Your task to perform on an android device: change timer sound Image 0: 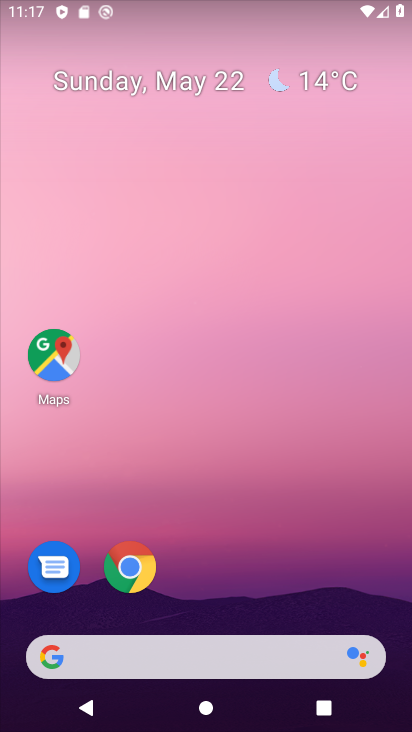
Step 0: drag from (226, 569) to (311, 160)
Your task to perform on an android device: change timer sound Image 1: 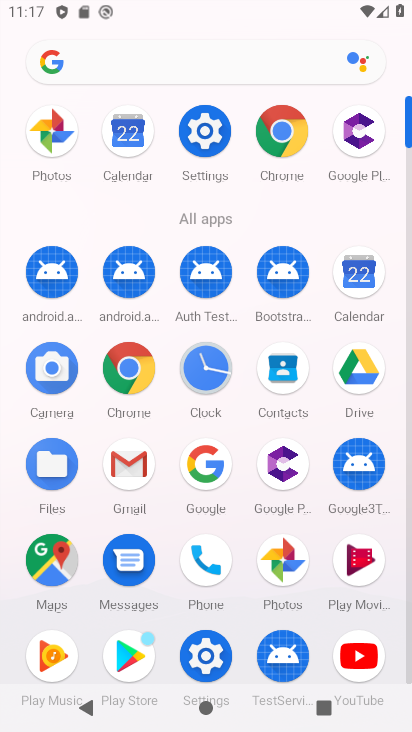
Step 1: click (221, 373)
Your task to perform on an android device: change timer sound Image 2: 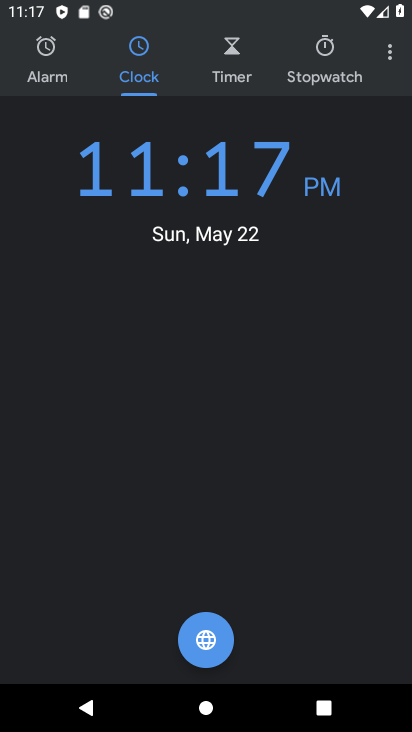
Step 2: click (388, 52)
Your task to perform on an android device: change timer sound Image 3: 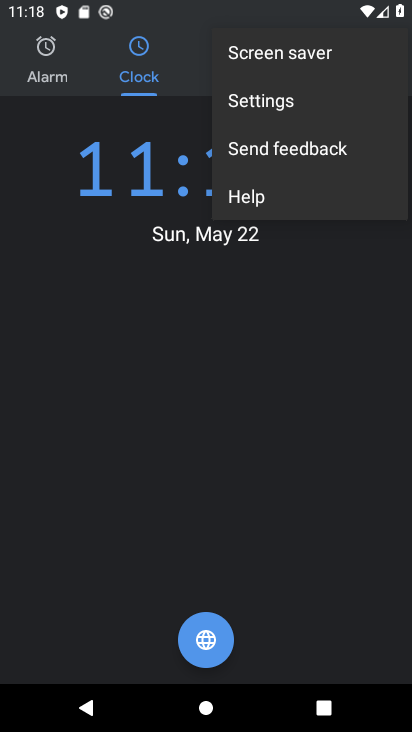
Step 3: click (277, 105)
Your task to perform on an android device: change timer sound Image 4: 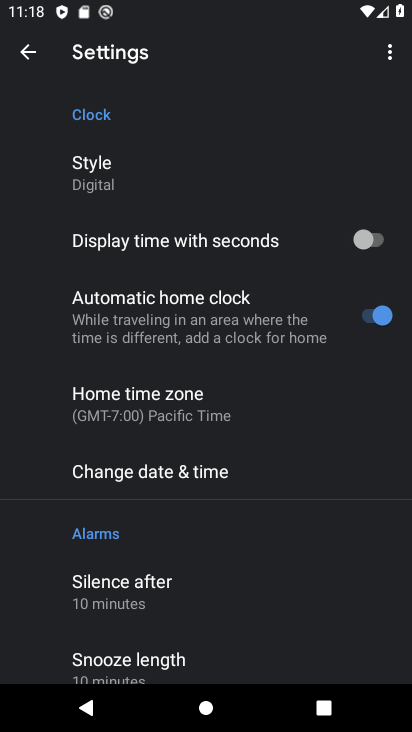
Step 4: drag from (187, 597) to (223, 32)
Your task to perform on an android device: change timer sound Image 5: 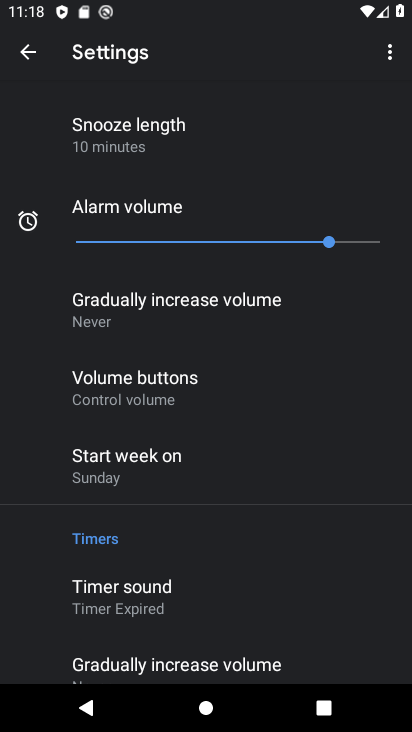
Step 5: click (134, 601)
Your task to perform on an android device: change timer sound Image 6: 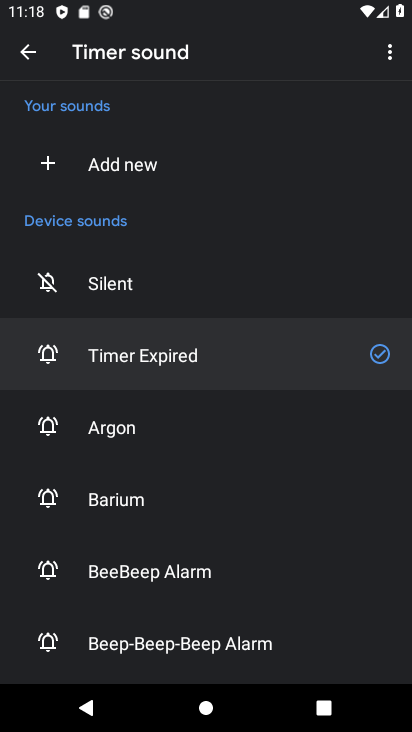
Step 6: click (120, 428)
Your task to perform on an android device: change timer sound Image 7: 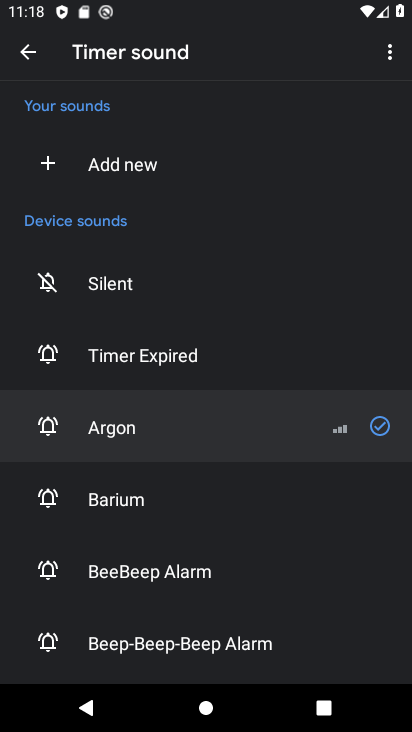
Step 7: task complete